Your task to perform on an android device: Show me popular videos on Youtube Image 0: 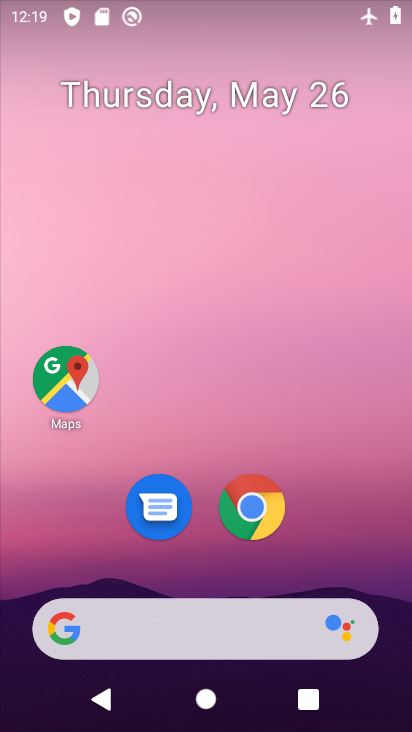
Step 0: drag from (204, 575) to (204, 180)
Your task to perform on an android device: Show me popular videos on Youtube Image 1: 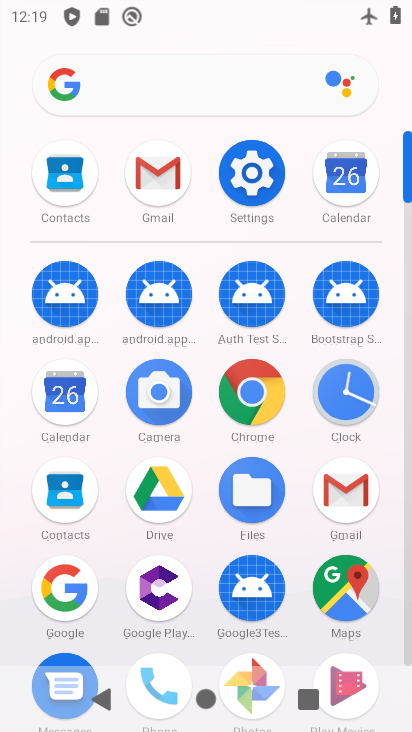
Step 1: drag from (196, 576) to (202, 281)
Your task to perform on an android device: Show me popular videos on Youtube Image 2: 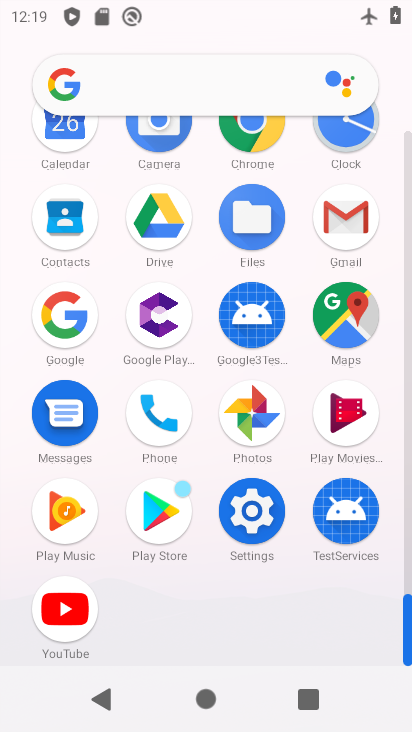
Step 2: click (96, 606)
Your task to perform on an android device: Show me popular videos on Youtube Image 3: 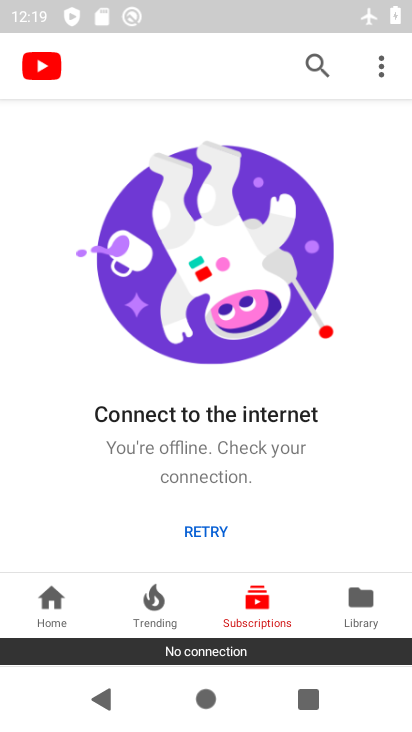
Step 3: click (315, 61)
Your task to perform on an android device: Show me popular videos on Youtube Image 4: 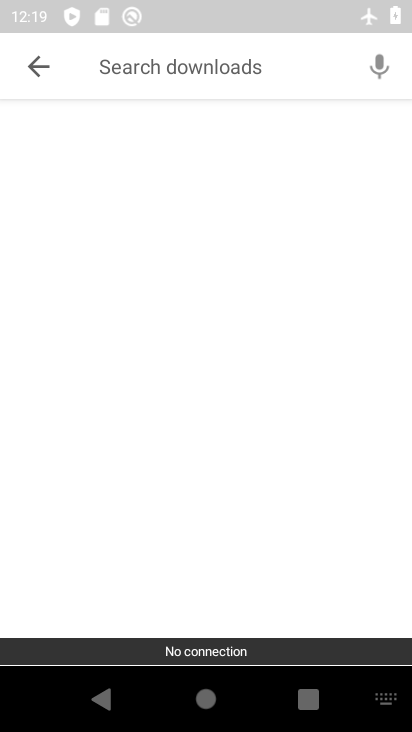
Step 4: click (247, 59)
Your task to perform on an android device: Show me popular videos on Youtube Image 5: 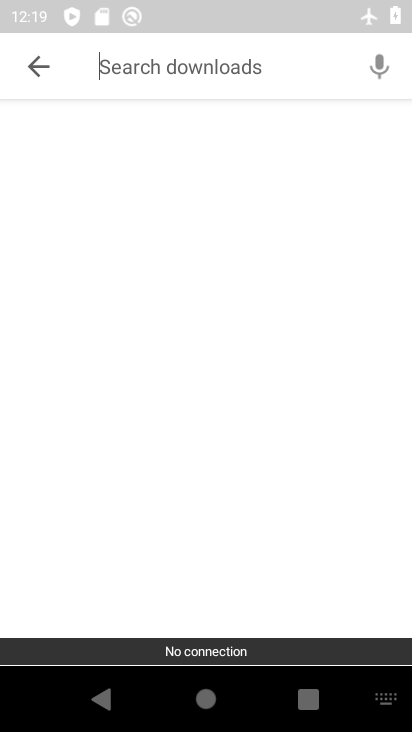
Step 5: type " popular videos"
Your task to perform on an android device: Show me popular videos on Youtube Image 6: 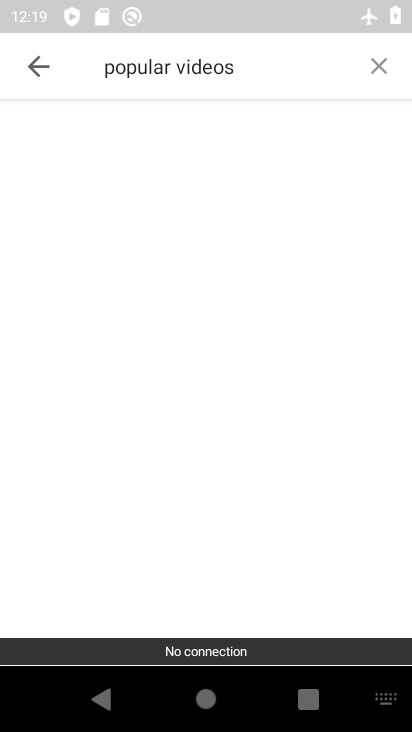
Step 6: task complete